Your task to perform on an android device: Go to Amazon Image 0: 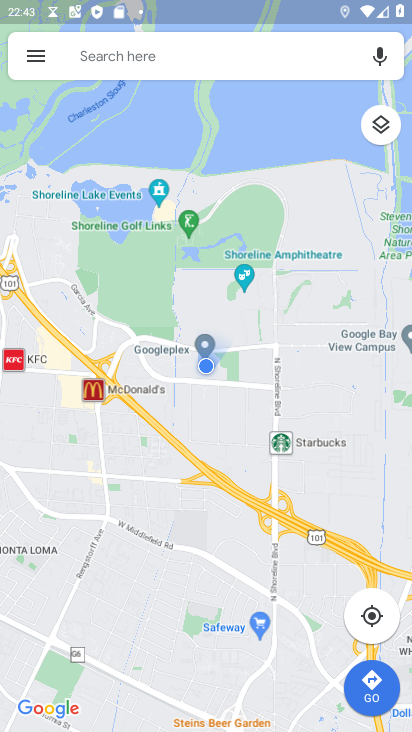
Step 0: press back button
Your task to perform on an android device: Go to Amazon Image 1: 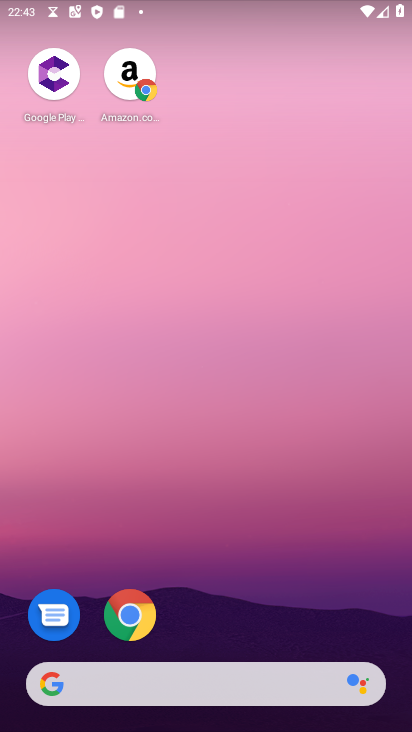
Step 1: click (130, 617)
Your task to perform on an android device: Go to Amazon Image 2: 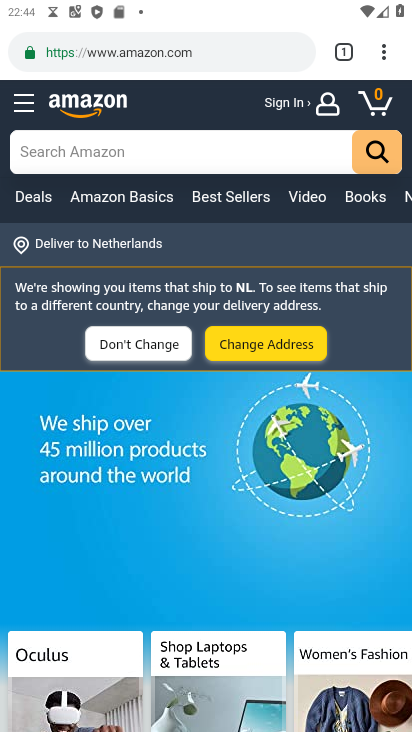
Step 2: task complete